Your task to perform on an android device: refresh tabs in the chrome app Image 0: 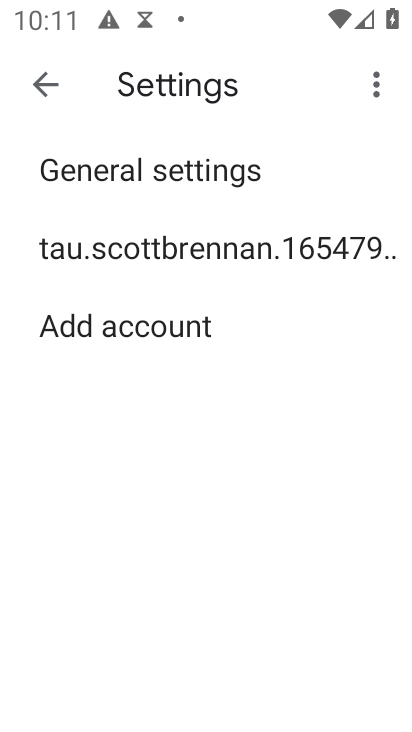
Step 0: press home button
Your task to perform on an android device: refresh tabs in the chrome app Image 1: 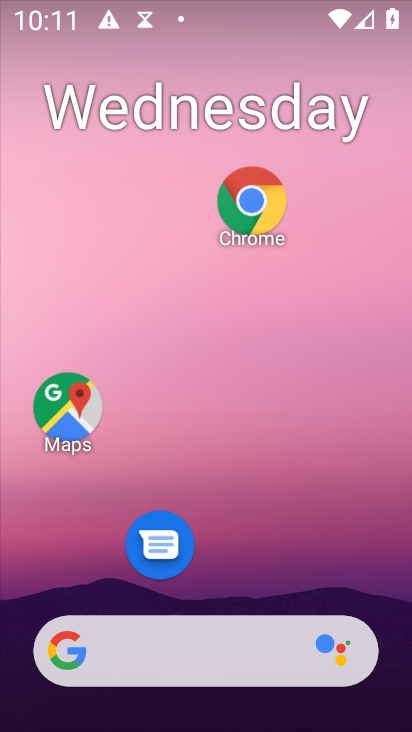
Step 1: click (261, 189)
Your task to perform on an android device: refresh tabs in the chrome app Image 2: 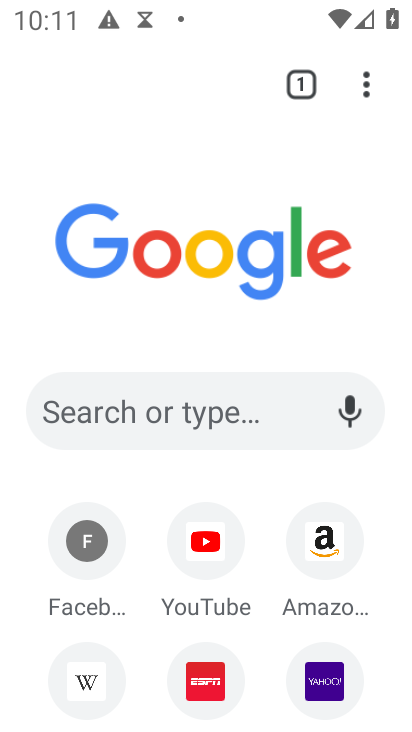
Step 2: click (367, 74)
Your task to perform on an android device: refresh tabs in the chrome app Image 3: 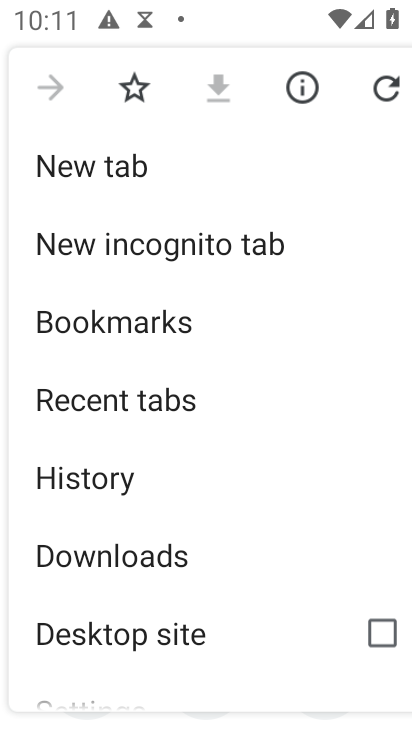
Step 3: click (402, 92)
Your task to perform on an android device: refresh tabs in the chrome app Image 4: 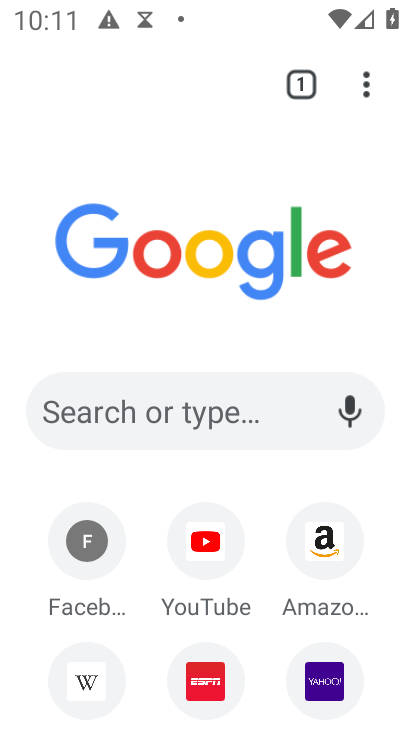
Step 4: task complete